Your task to perform on an android device: What's the news in Guyana? Image 0: 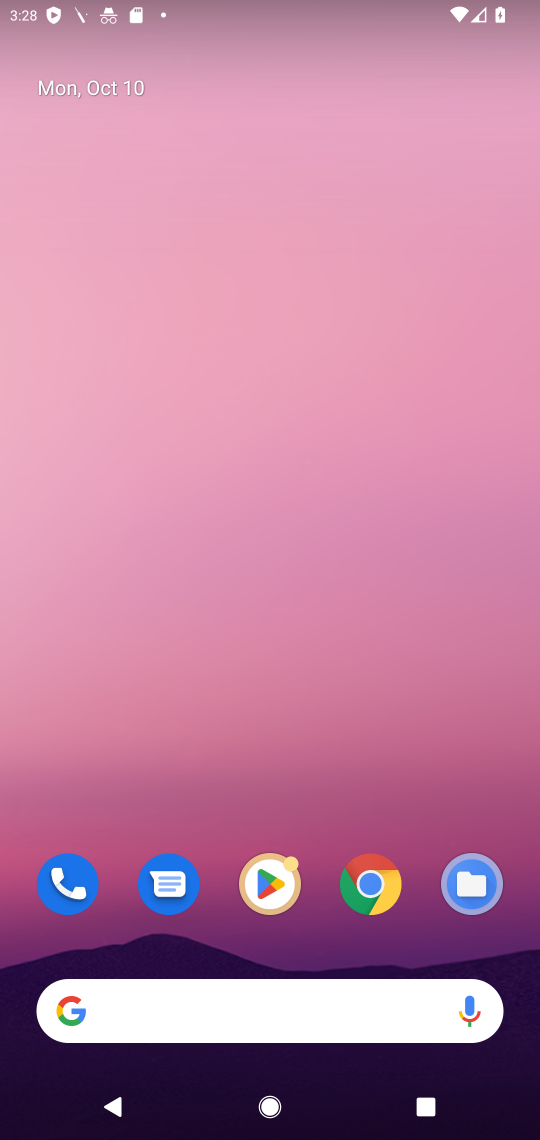
Step 0: click (311, 988)
Your task to perform on an android device: What's the news in Guyana? Image 1: 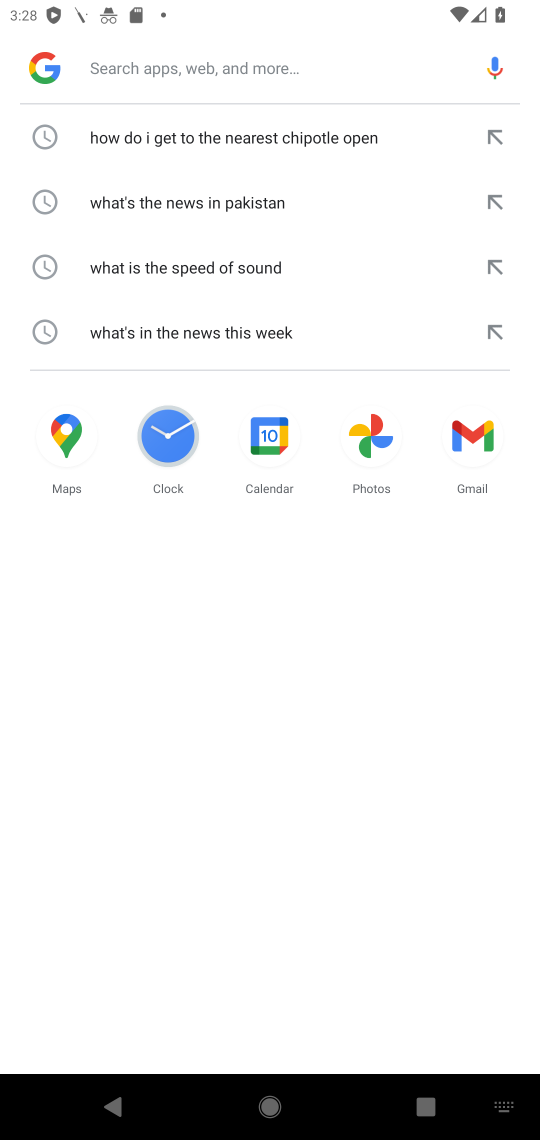
Step 1: type "What's the news in Guyana?"
Your task to perform on an android device: What's the news in Guyana? Image 2: 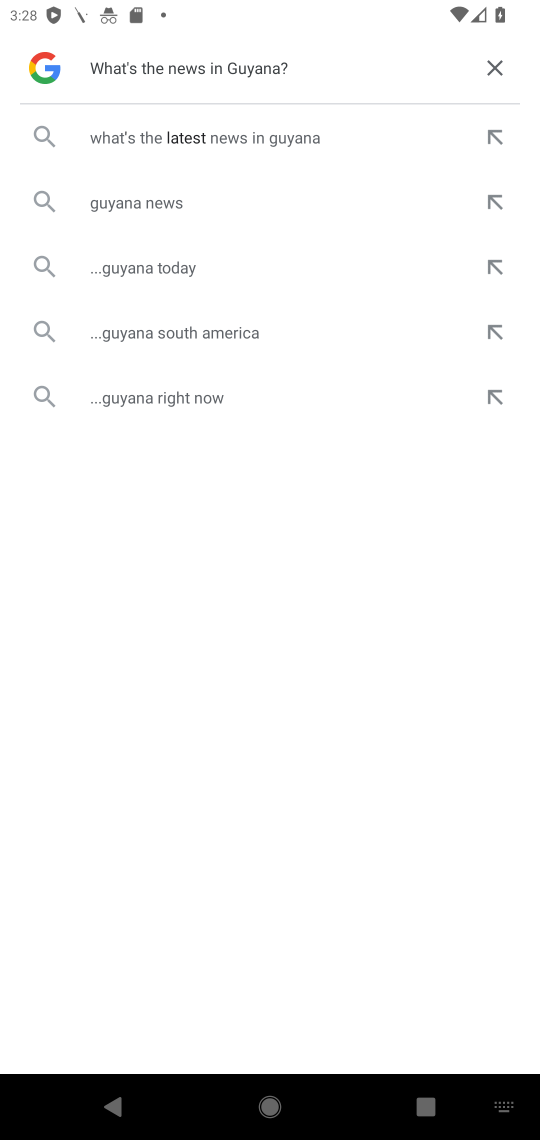
Step 2: click (130, 207)
Your task to perform on an android device: What's the news in Guyana? Image 3: 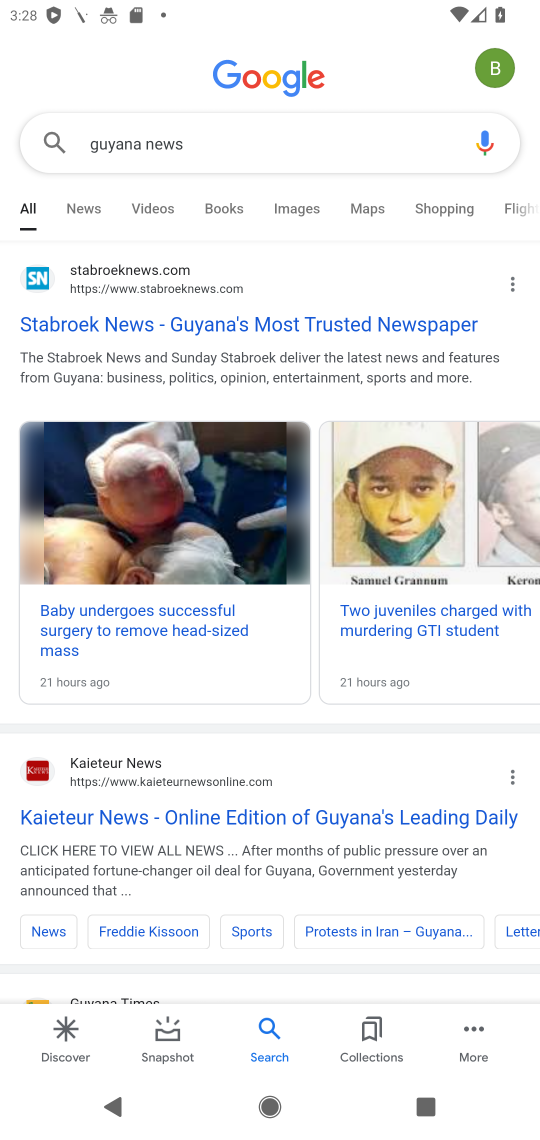
Step 3: click (195, 331)
Your task to perform on an android device: What's the news in Guyana? Image 4: 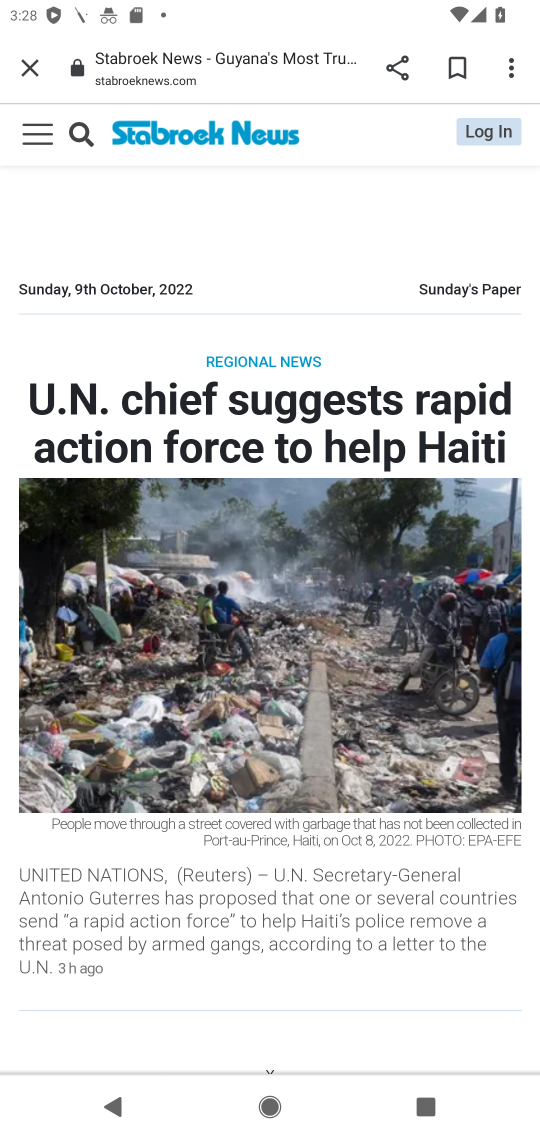
Step 4: task complete